Your task to perform on an android device: Go to notification settings Image 0: 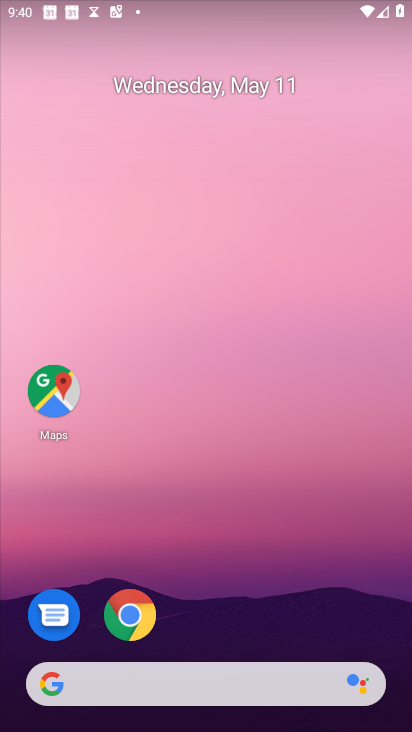
Step 0: press home button
Your task to perform on an android device: Go to notification settings Image 1: 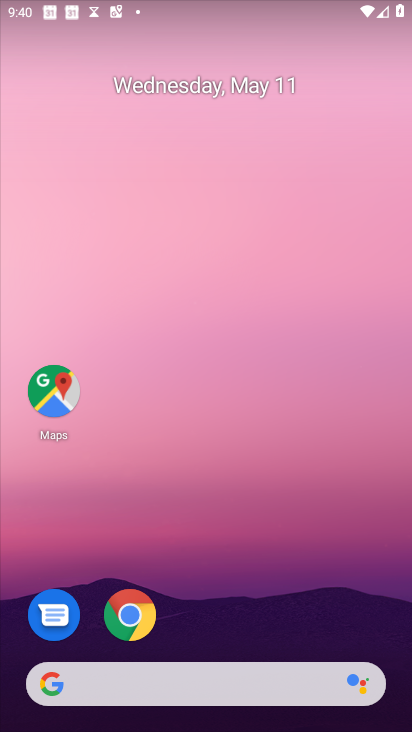
Step 1: drag from (66, 545) to (280, 113)
Your task to perform on an android device: Go to notification settings Image 2: 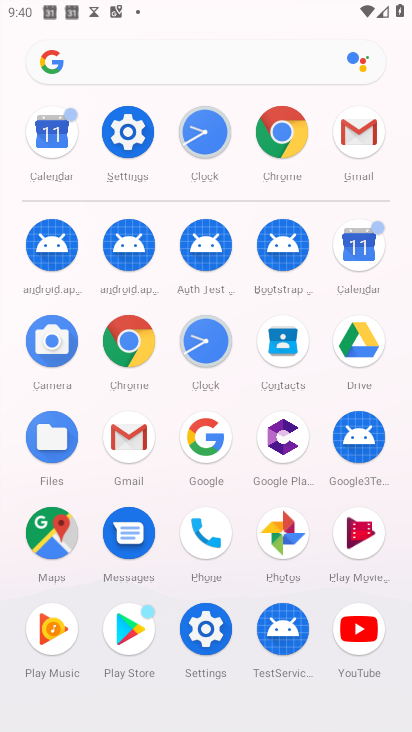
Step 2: click (200, 627)
Your task to perform on an android device: Go to notification settings Image 3: 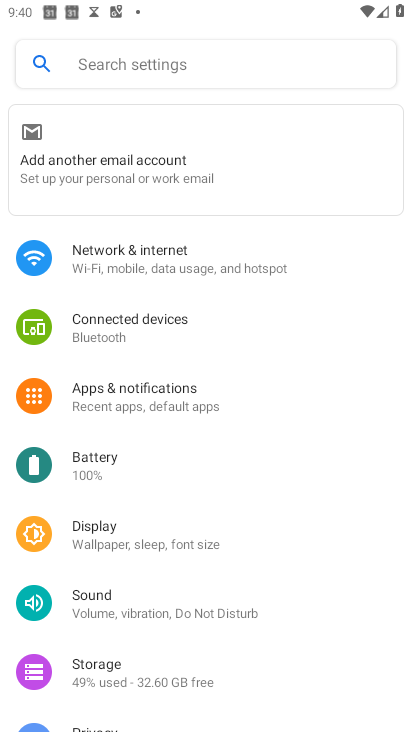
Step 3: click (146, 400)
Your task to perform on an android device: Go to notification settings Image 4: 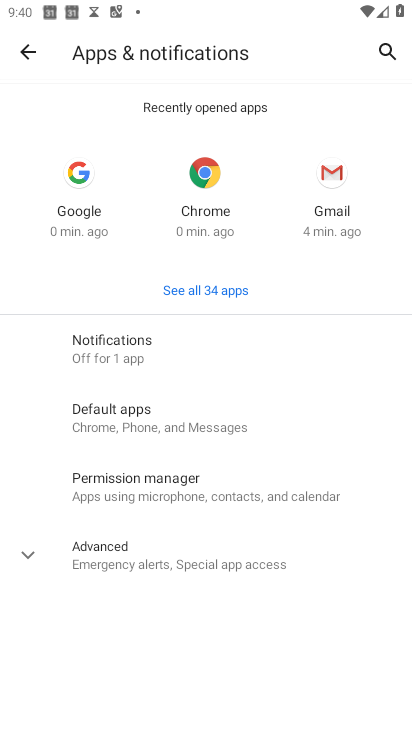
Step 4: click (98, 347)
Your task to perform on an android device: Go to notification settings Image 5: 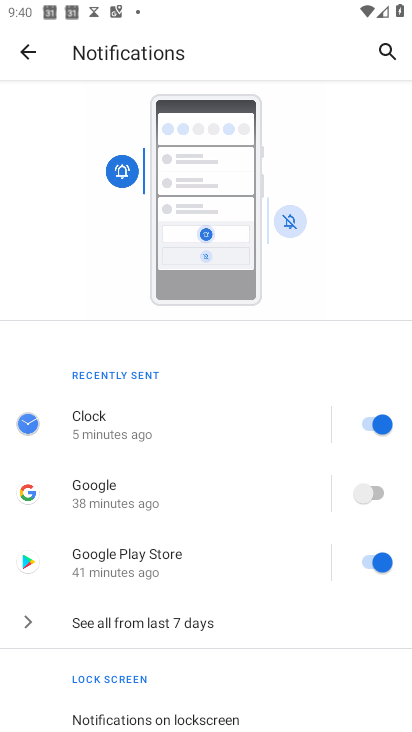
Step 5: task complete